Your task to perform on an android device: Go to Yahoo.com Image 0: 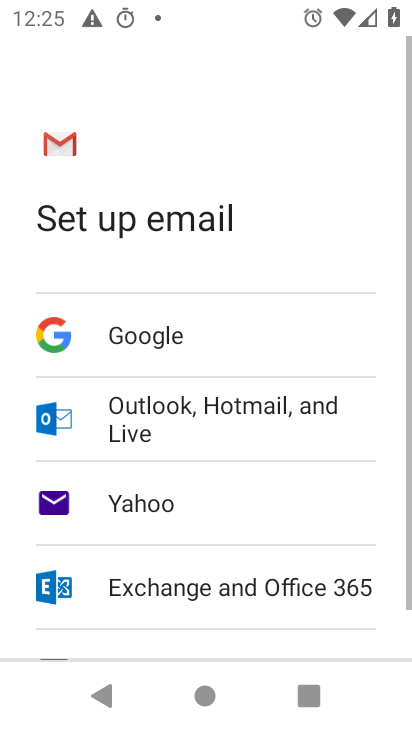
Step 0: press back button
Your task to perform on an android device: Go to Yahoo.com Image 1: 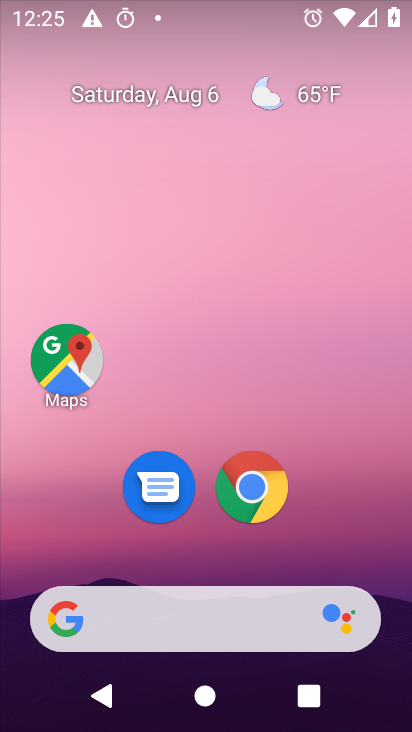
Step 1: click (250, 474)
Your task to perform on an android device: Go to Yahoo.com Image 2: 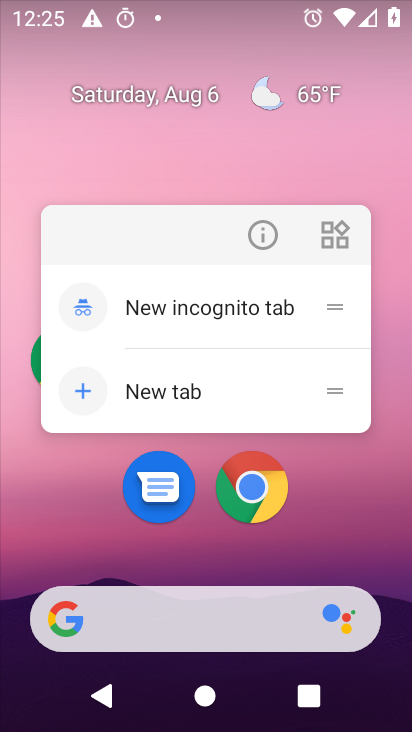
Step 2: click (265, 510)
Your task to perform on an android device: Go to Yahoo.com Image 3: 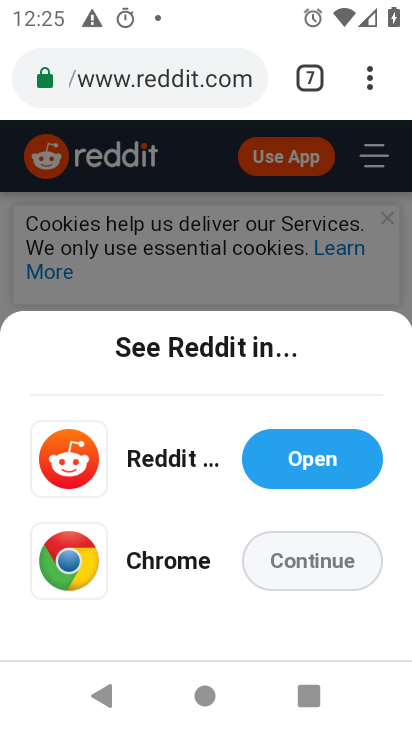
Step 3: click (320, 77)
Your task to perform on an android device: Go to Yahoo.com Image 4: 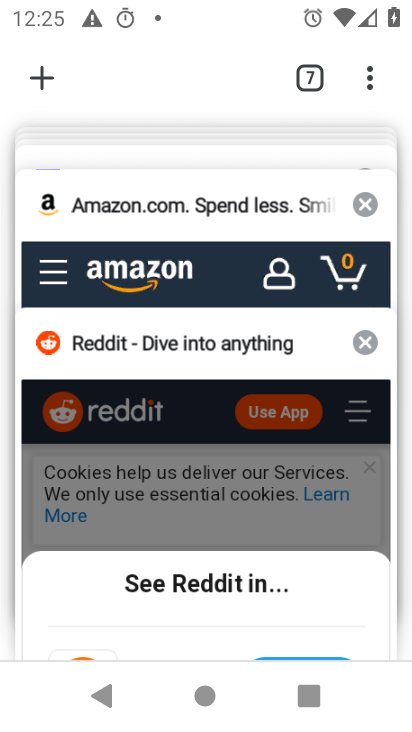
Step 4: drag from (178, 147) to (171, 678)
Your task to perform on an android device: Go to Yahoo.com Image 5: 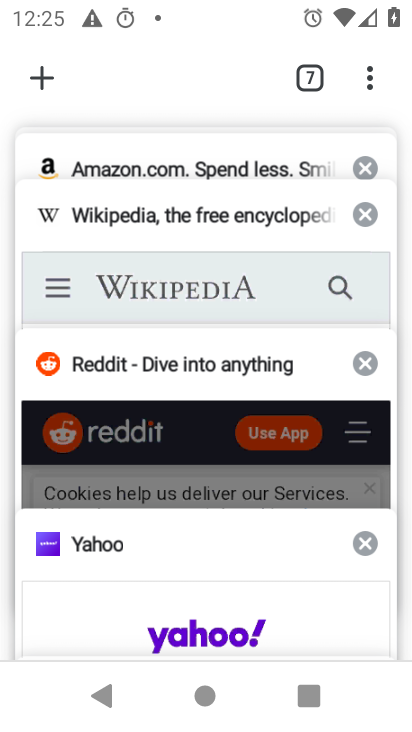
Step 5: click (98, 547)
Your task to perform on an android device: Go to Yahoo.com Image 6: 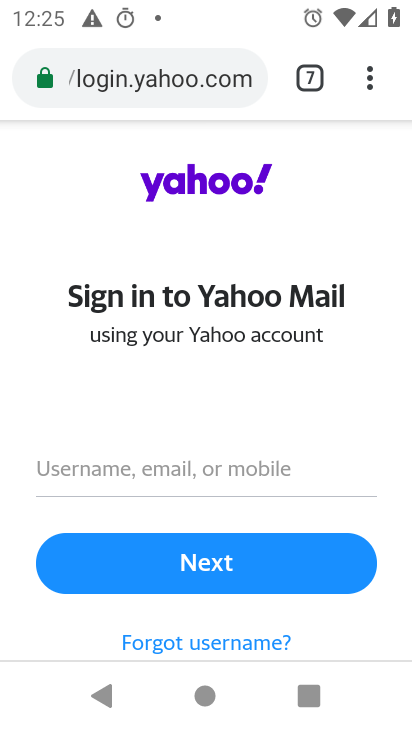
Step 6: task complete